Your task to perform on an android device: Show me the alarms in the clock app Image 0: 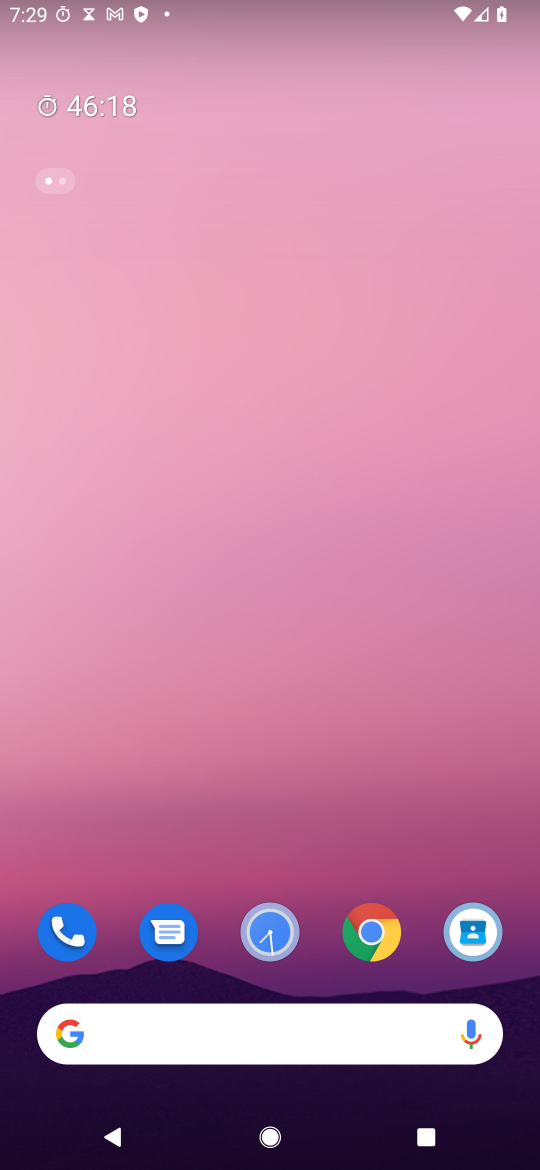
Step 0: click (295, 957)
Your task to perform on an android device: Show me the alarms in the clock app Image 1: 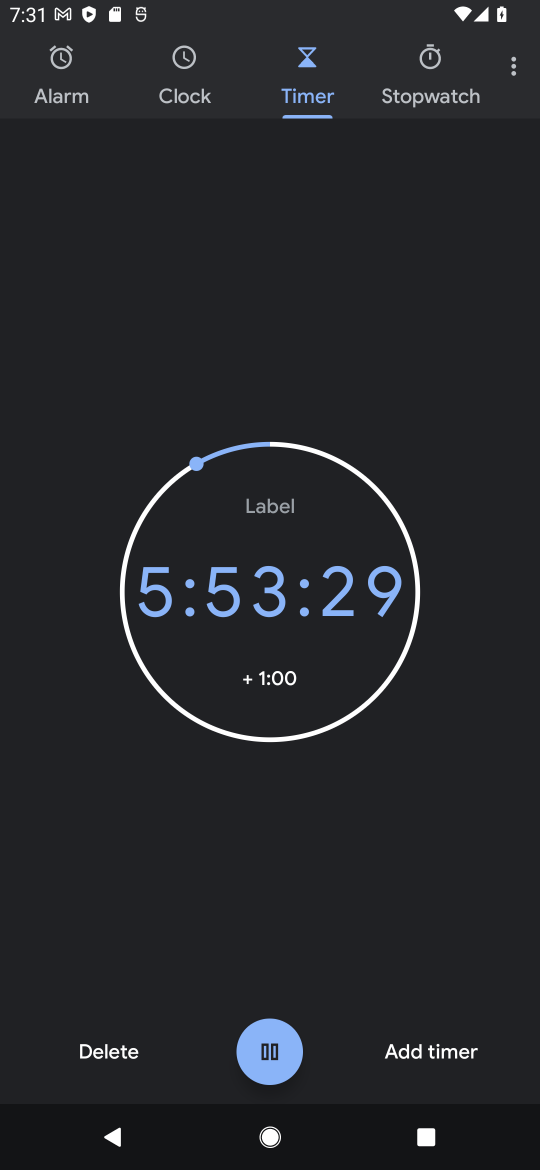
Step 1: click (74, 59)
Your task to perform on an android device: Show me the alarms in the clock app Image 2: 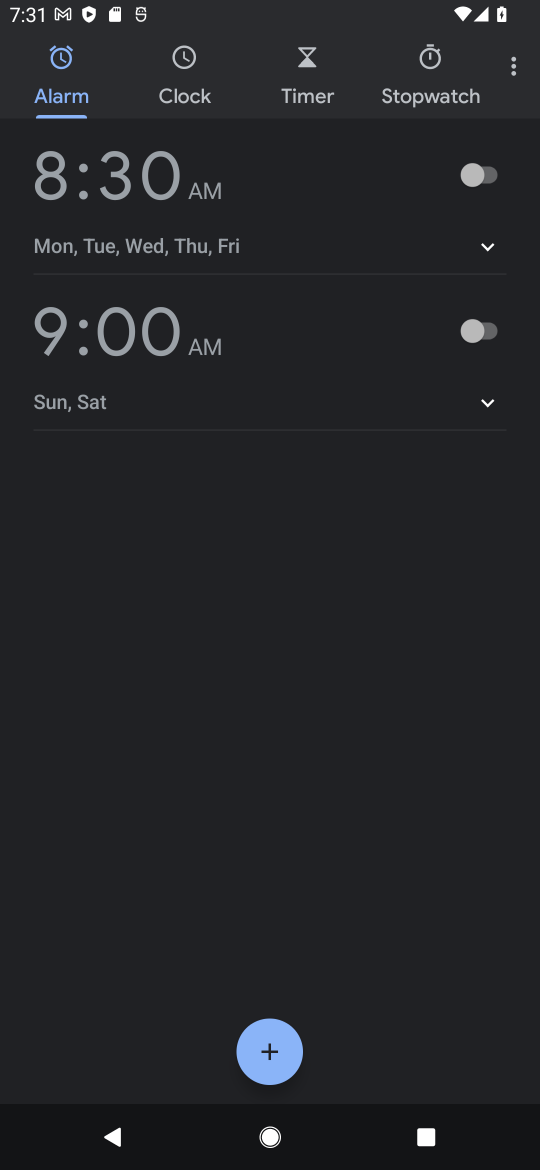
Step 2: task complete